Your task to perform on an android device: turn off location Image 0: 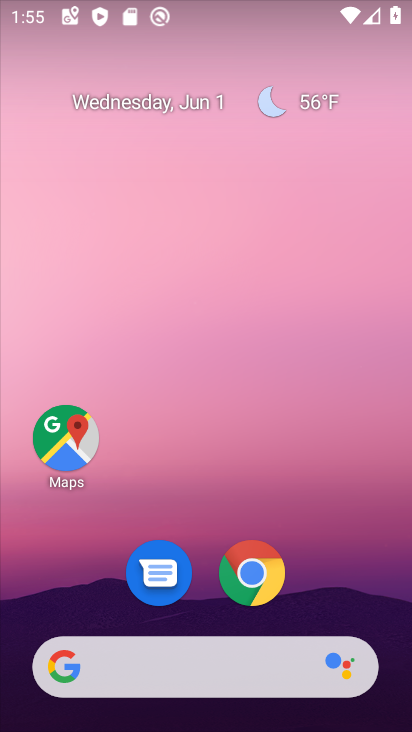
Step 0: drag from (357, 585) to (237, 4)
Your task to perform on an android device: turn off location Image 1: 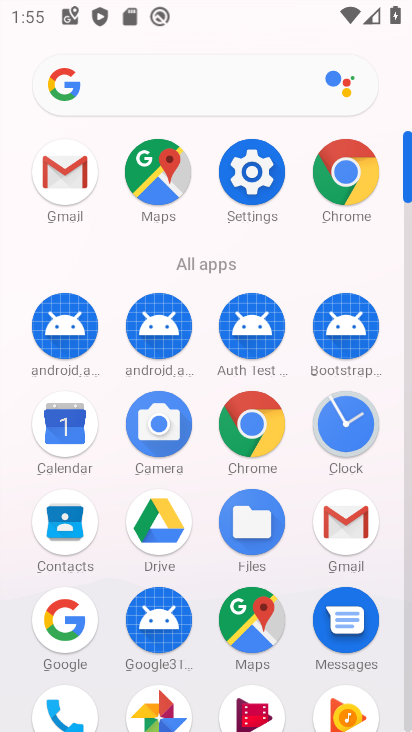
Step 1: click (252, 197)
Your task to perform on an android device: turn off location Image 2: 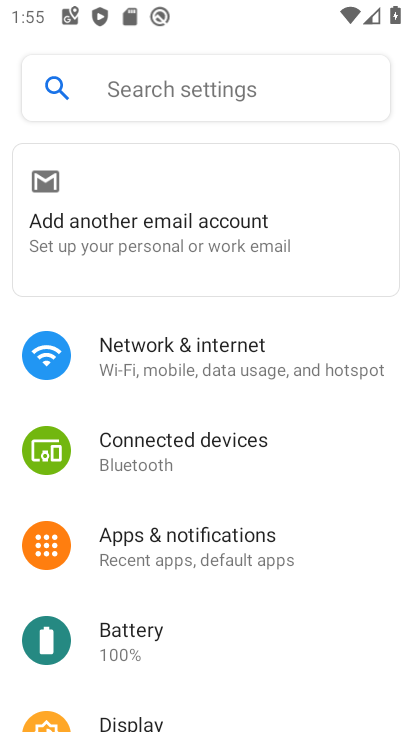
Step 2: drag from (242, 586) to (243, 257)
Your task to perform on an android device: turn off location Image 3: 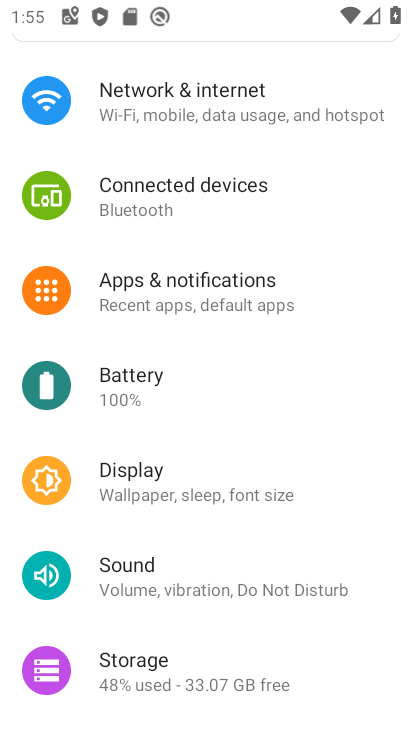
Step 3: drag from (232, 592) to (247, 213)
Your task to perform on an android device: turn off location Image 4: 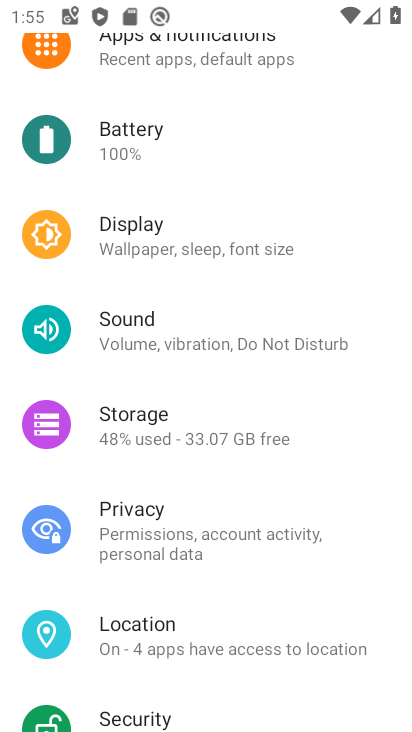
Step 4: click (206, 640)
Your task to perform on an android device: turn off location Image 5: 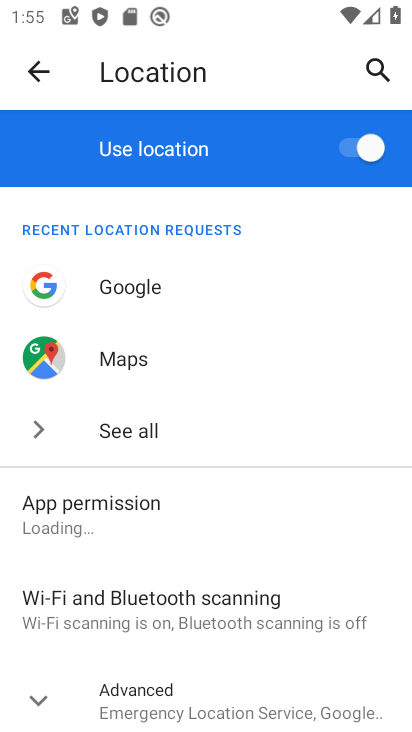
Step 5: click (349, 153)
Your task to perform on an android device: turn off location Image 6: 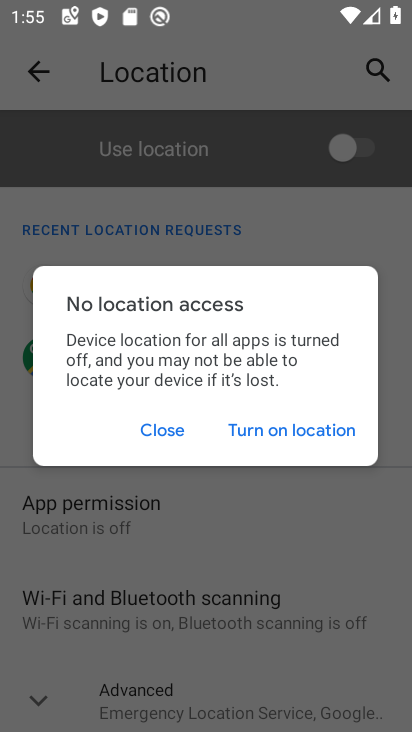
Step 6: task complete